Your task to perform on an android device: When is my next appointment? Image 0: 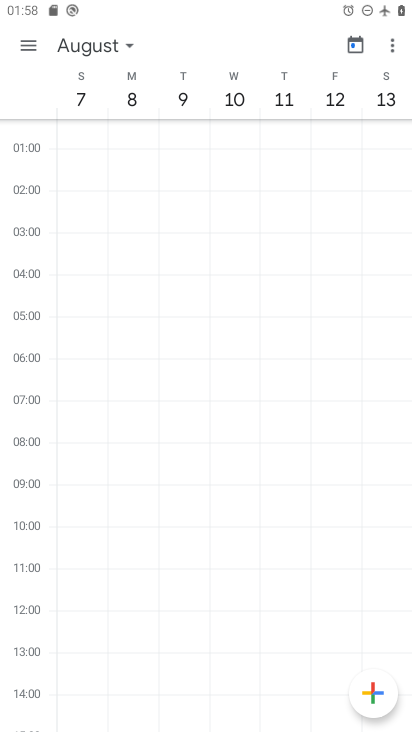
Step 0: press home button
Your task to perform on an android device: When is my next appointment? Image 1: 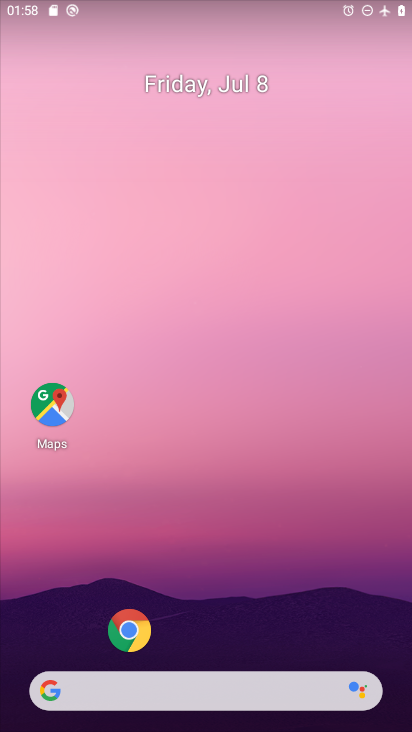
Step 1: drag from (238, 607) to (292, 138)
Your task to perform on an android device: When is my next appointment? Image 2: 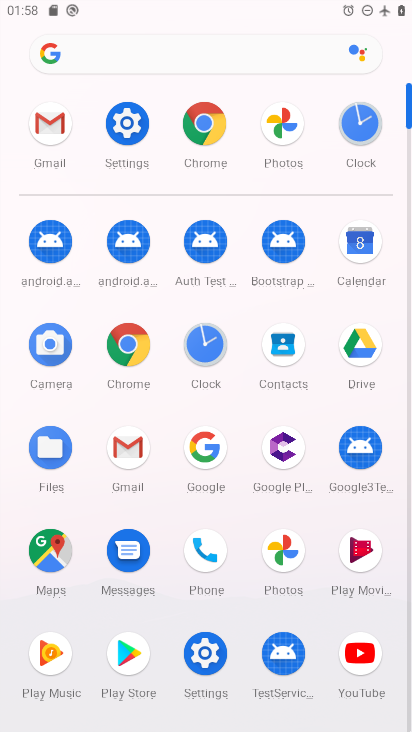
Step 2: click (343, 254)
Your task to perform on an android device: When is my next appointment? Image 3: 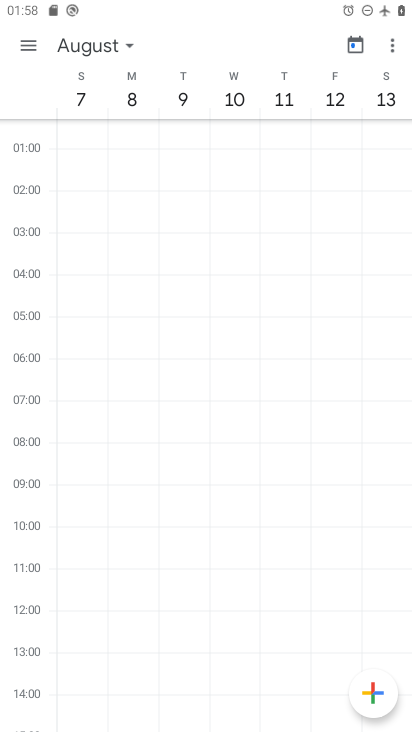
Step 3: click (128, 44)
Your task to perform on an android device: When is my next appointment? Image 4: 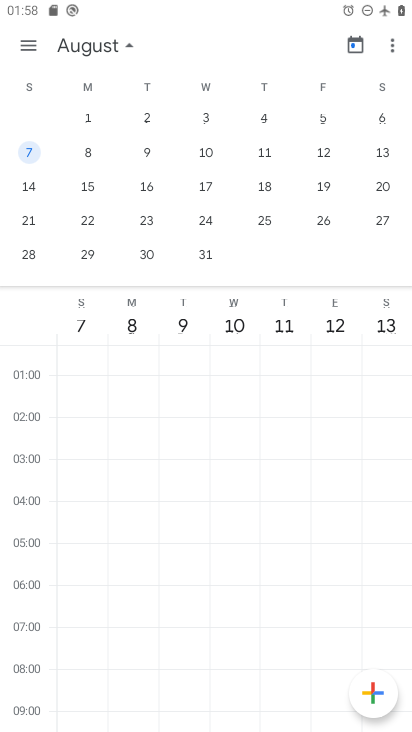
Step 4: drag from (50, 176) to (376, 182)
Your task to perform on an android device: When is my next appointment? Image 5: 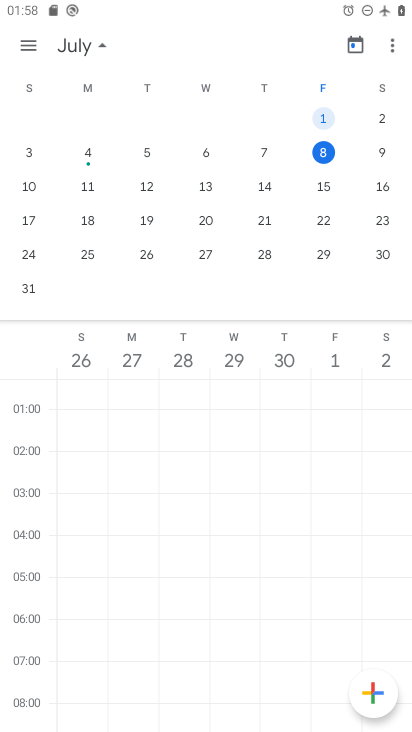
Step 5: click (373, 154)
Your task to perform on an android device: When is my next appointment? Image 6: 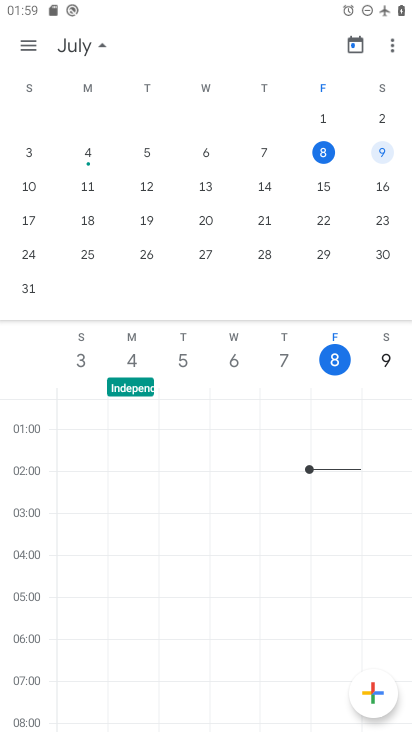
Step 6: task complete